Your task to perform on an android device: Go to sound settings Image 0: 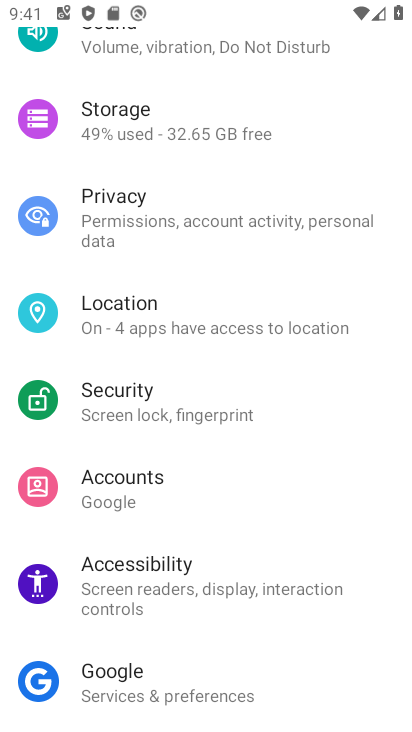
Step 0: drag from (154, 148) to (111, 702)
Your task to perform on an android device: Go to sound settings Image 1: 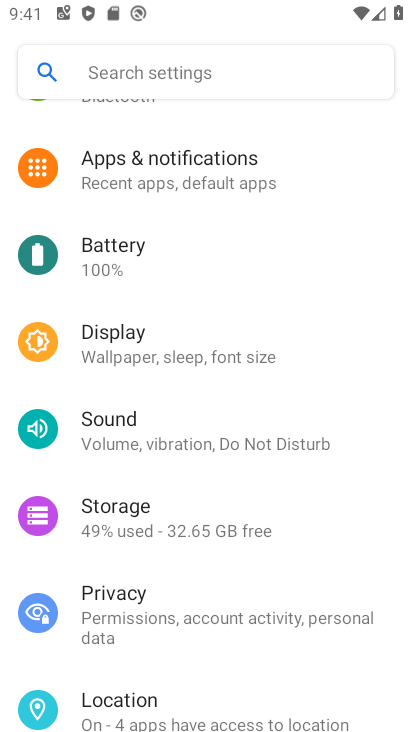
Step 1: click (113, 443)
Your task to perform on an android device: Go to sound settings Image 2: 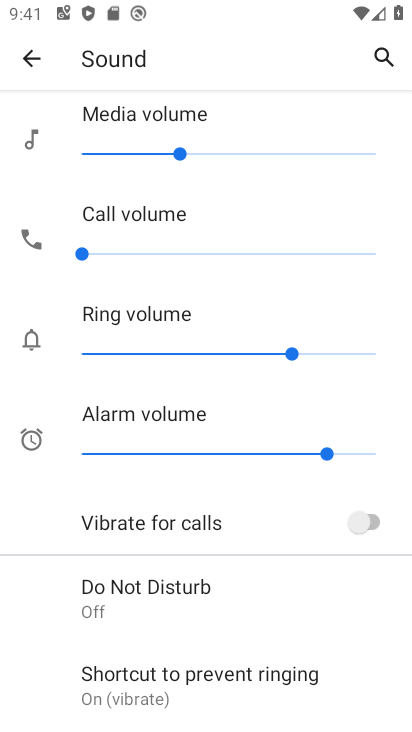
Step 2: task complete